Your task to perform on an android device: Open the web browser Image 0: 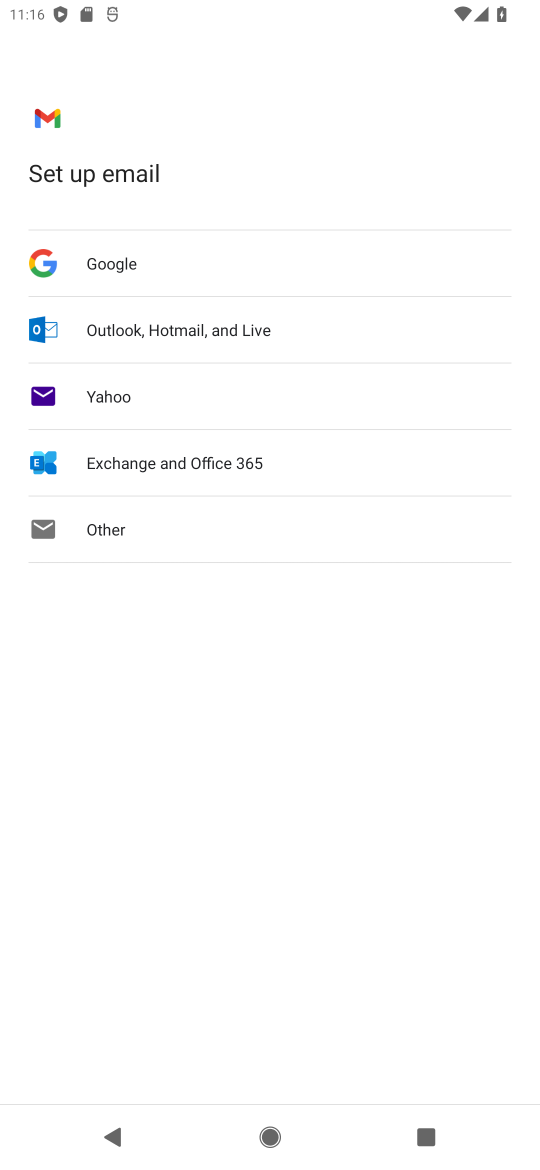
Step 0: click (111, 275)
Your task to perform on an android device: Open the web browser Image 1: 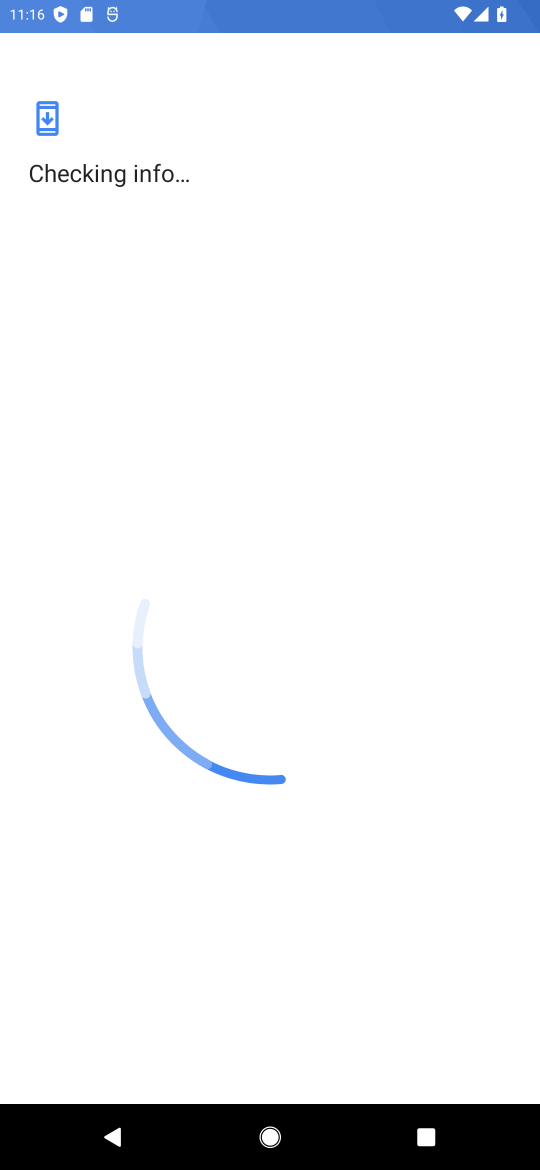
Step 1: press home button
Your task to perform on an android device: Open the web browser Image 2: 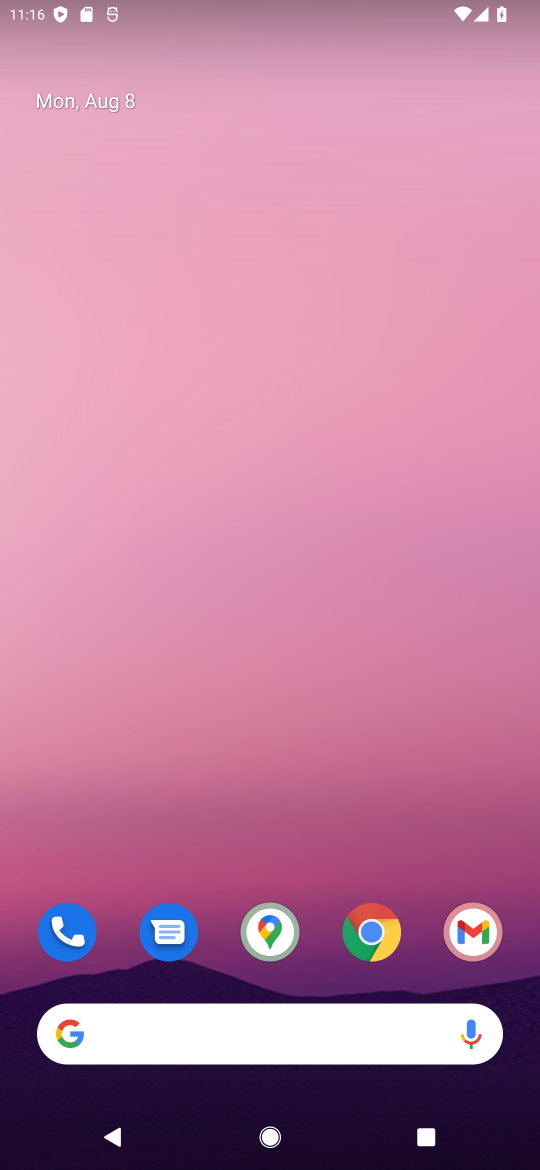
Step 2: click (240, 1049)
Your task to perform on an android device: Open the web browser Image 3: 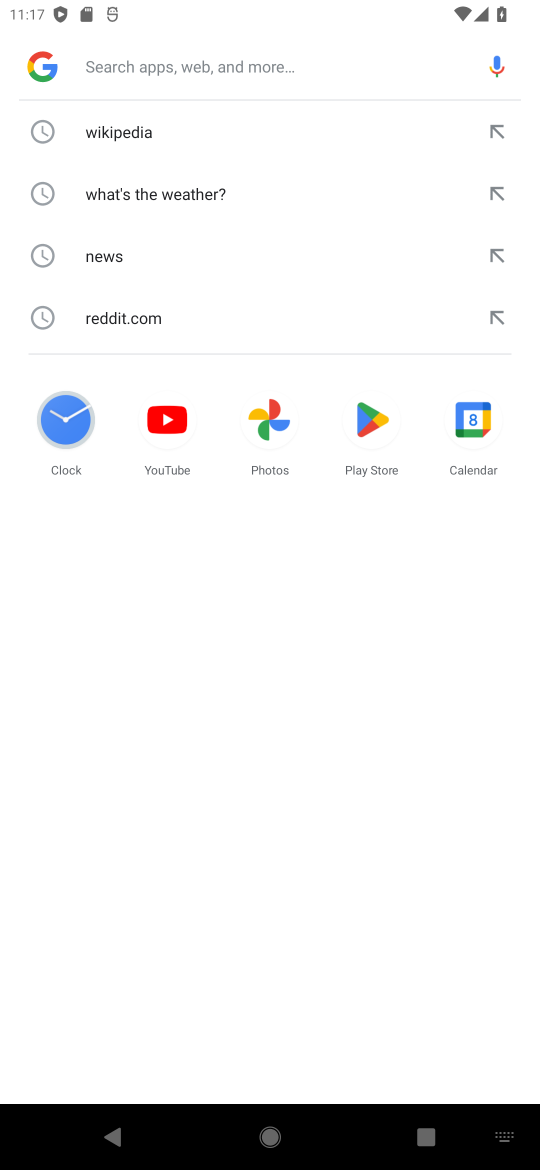
Step 3: task complete